Your task to perform on an android device: open a bookmark in the chrome app Image 0: 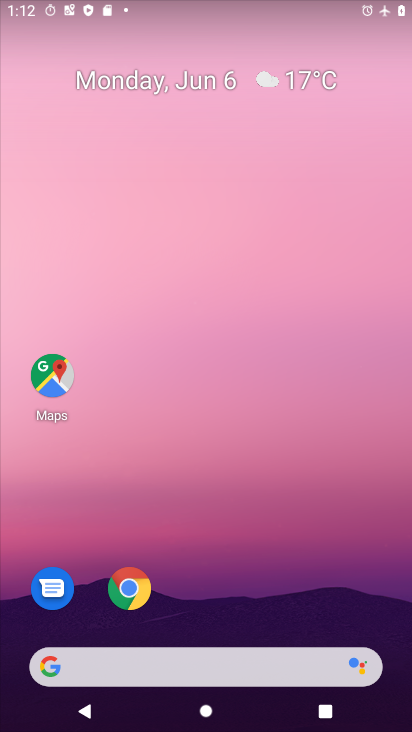
Step 0: drag from (259, 566) to (264, 191)
Your task to perform on an android device: open a bookmark in the chrome app Image 1: 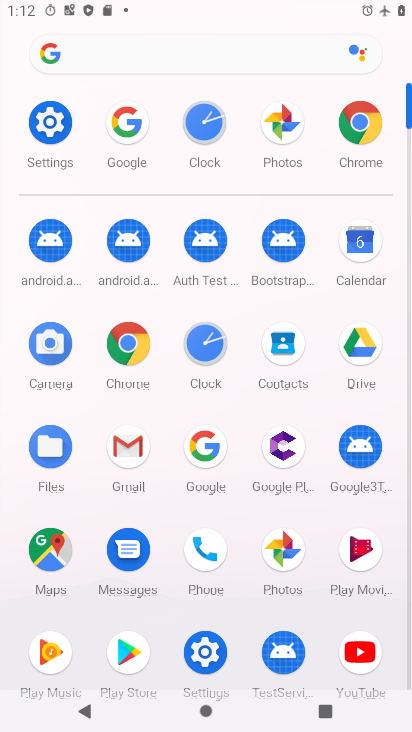
Step 1: click (127, 339)
Your task to perform on an android device: open a bookmark in the chrome app Image 2: 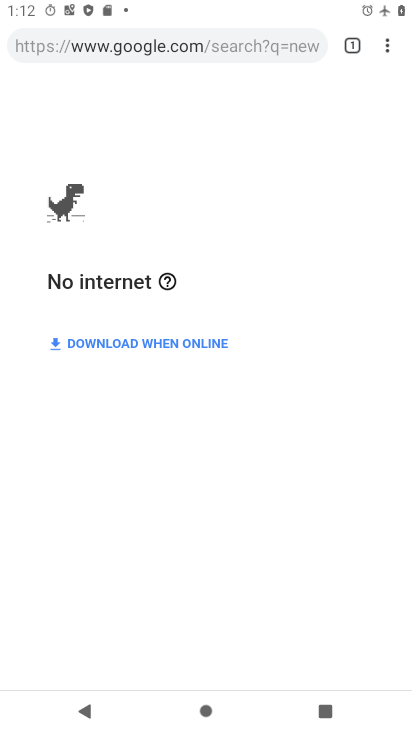
Step 2: task complete